Your task to perform on an android device: set an alarm Image 0: 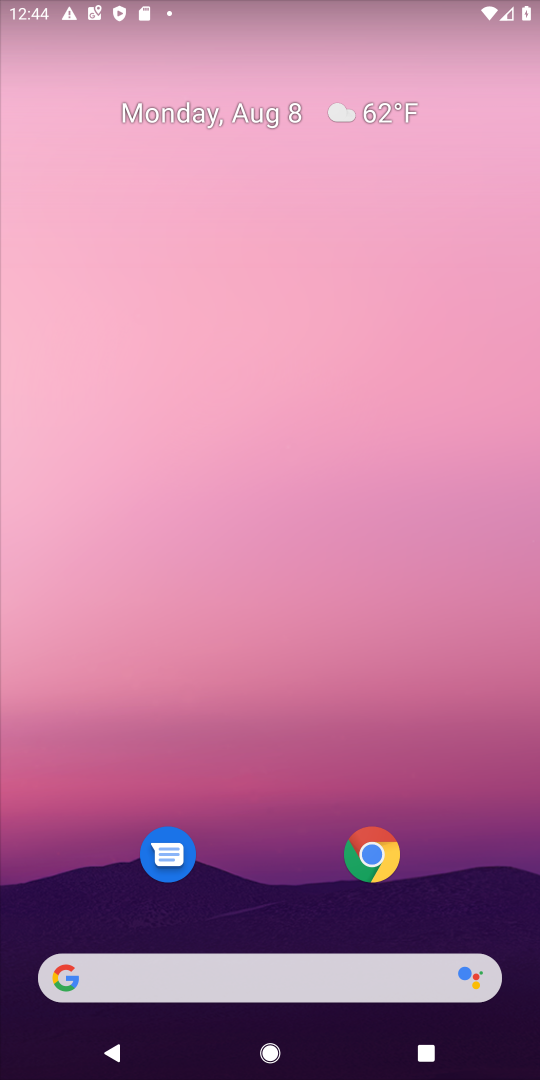
Step 0: press home button
Your task to perform on an android device: set an alarm Image 1: 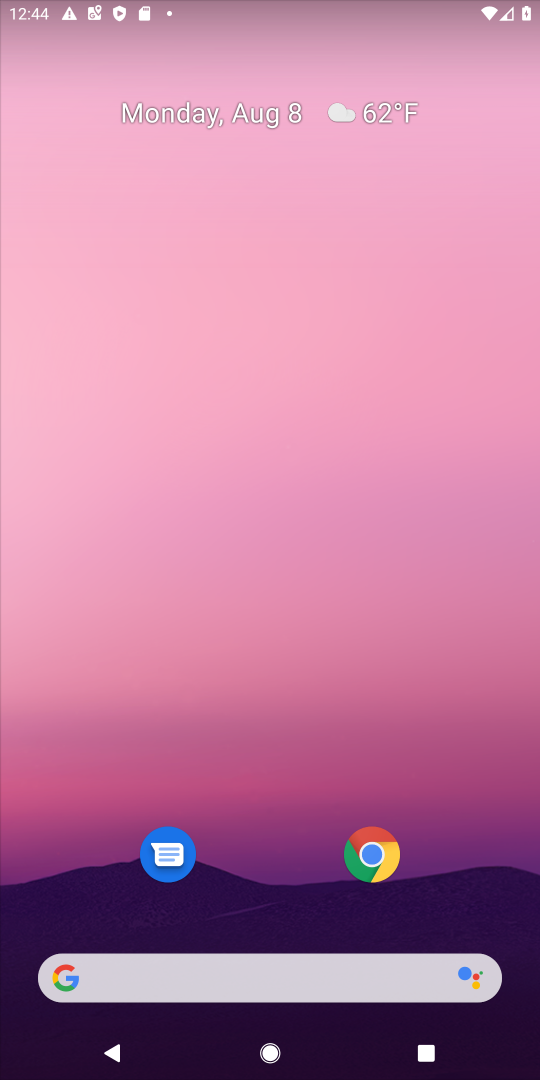
Step 1: drag from (296, 790) to (378, 185)
Your task to perform on an android device: set an alarm Image 2: 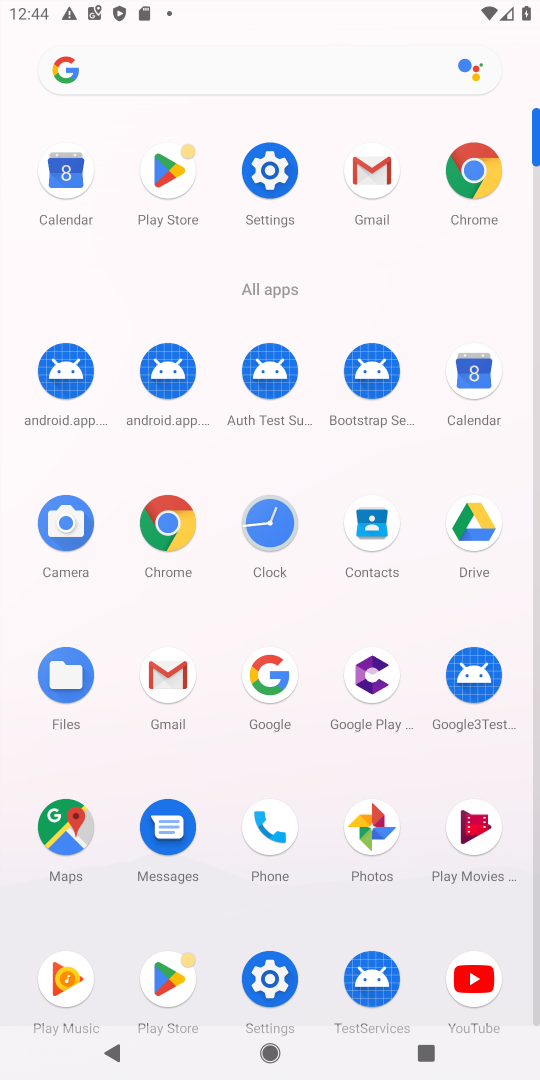
Step 2: click (269, 523)
Your task to perform on an android device: set an alarm Image 3: 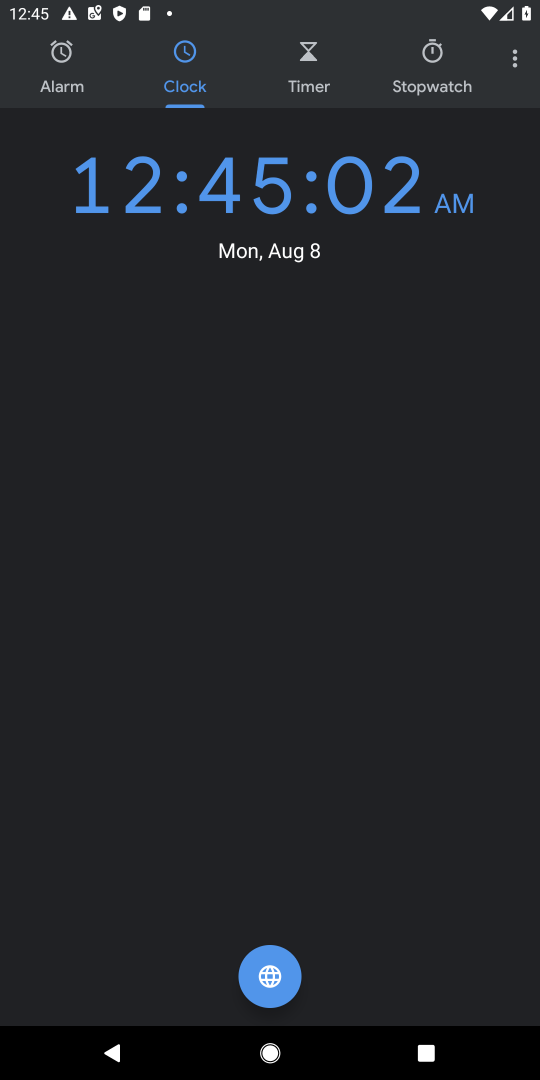
Step 3: click (62, 53)
Your task to perform on an android device: set an alarm Image 4: 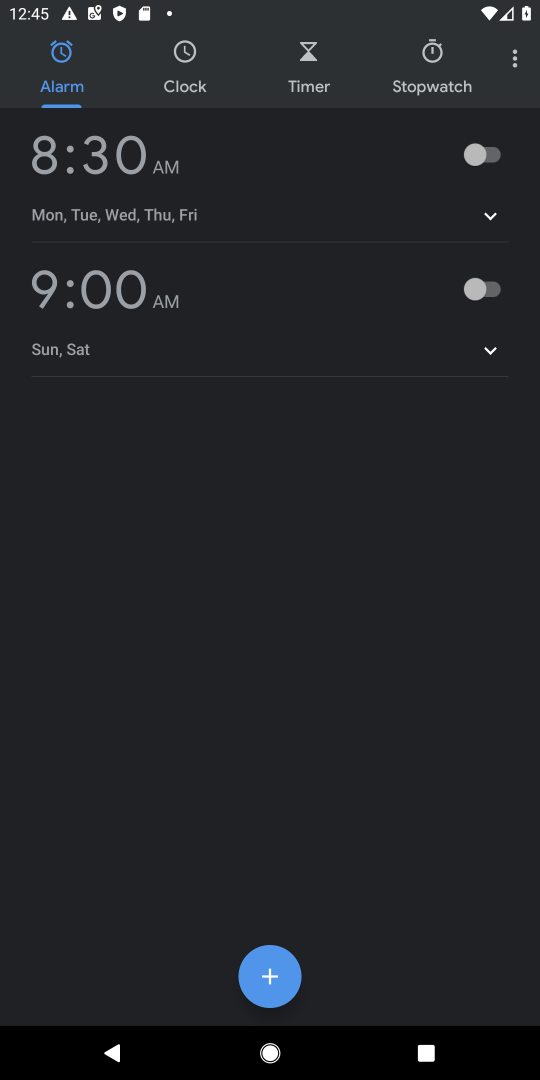
Step 4: task complete